Your task to perform on an android device: set default search engine in the chrome app Image 0: 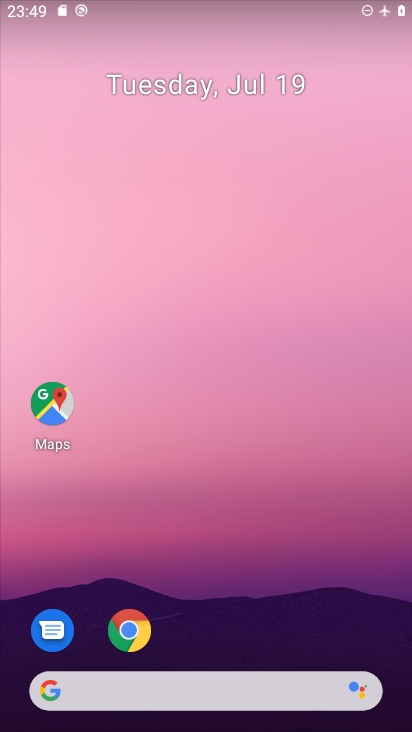
Step 0: click (121, 642)
Your task to perform on an android device: set default search engine in the chrome app Image 1: 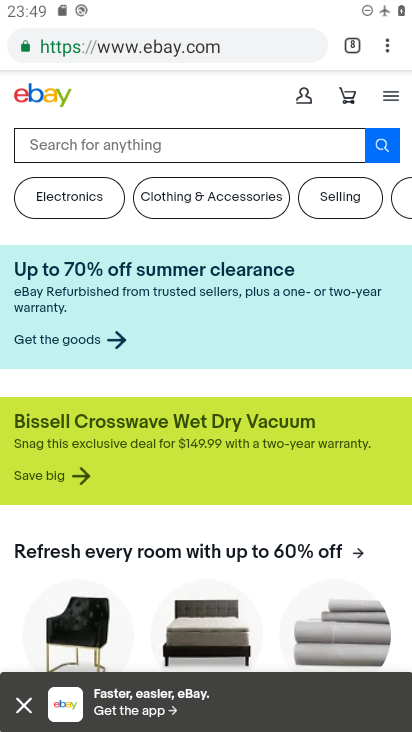
Step 1: click (389, 40)
Your task to perform on an android device: set default search engine in the chrome app Image 2: 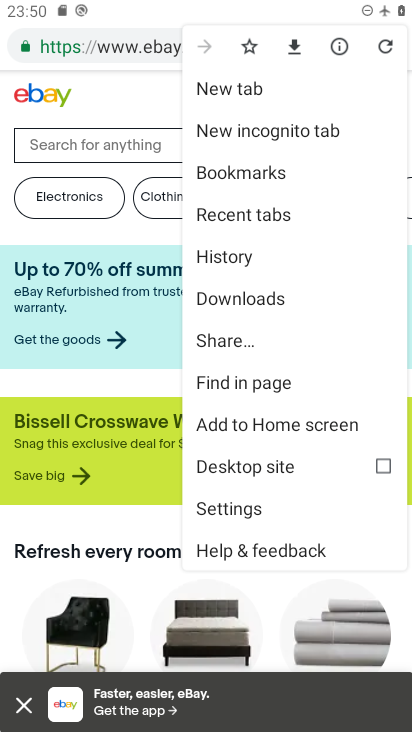
Step 2: click (241, 505)
Your task to perform on an android device: set default search engine in the chrome app Image 3: 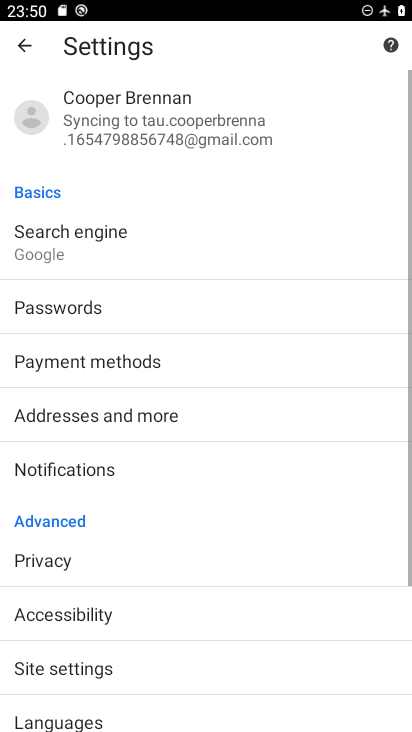
Step 3: click (132, 263)
Your task to perform on an android device: set default search engine in the chrome app Image 4: 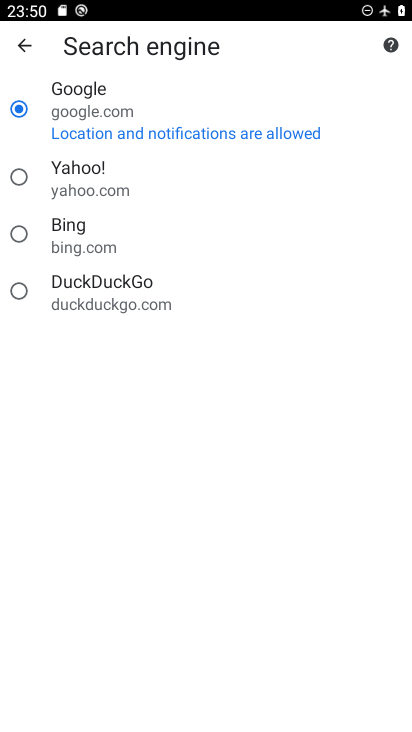
Step 4: task complete